Your task to perform on an android device: install app "Expedia: Hotels, Flights & Car" Image 0: 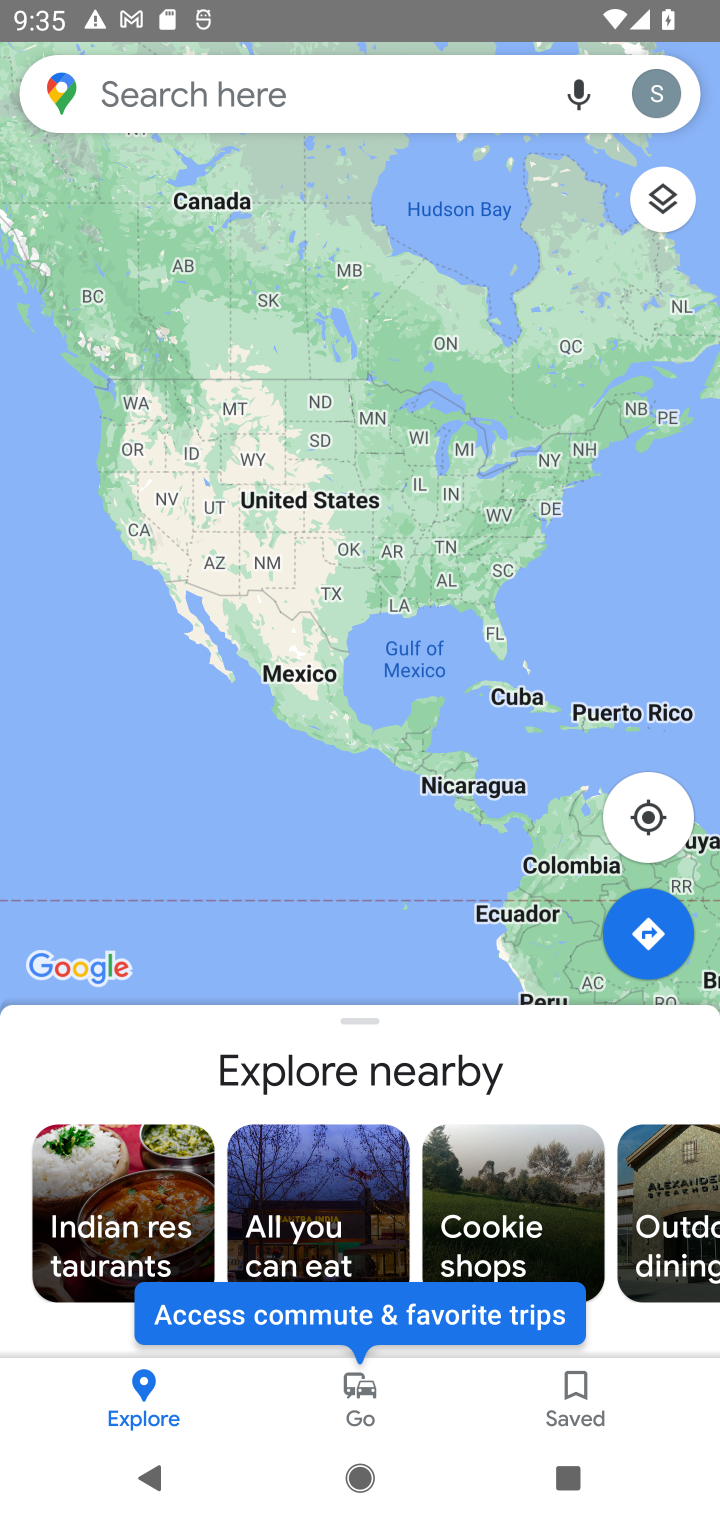
Step 0: press home button
Your task to perform on an android device: install app "Expedia: Hotels, Flights & Car" Image 1: 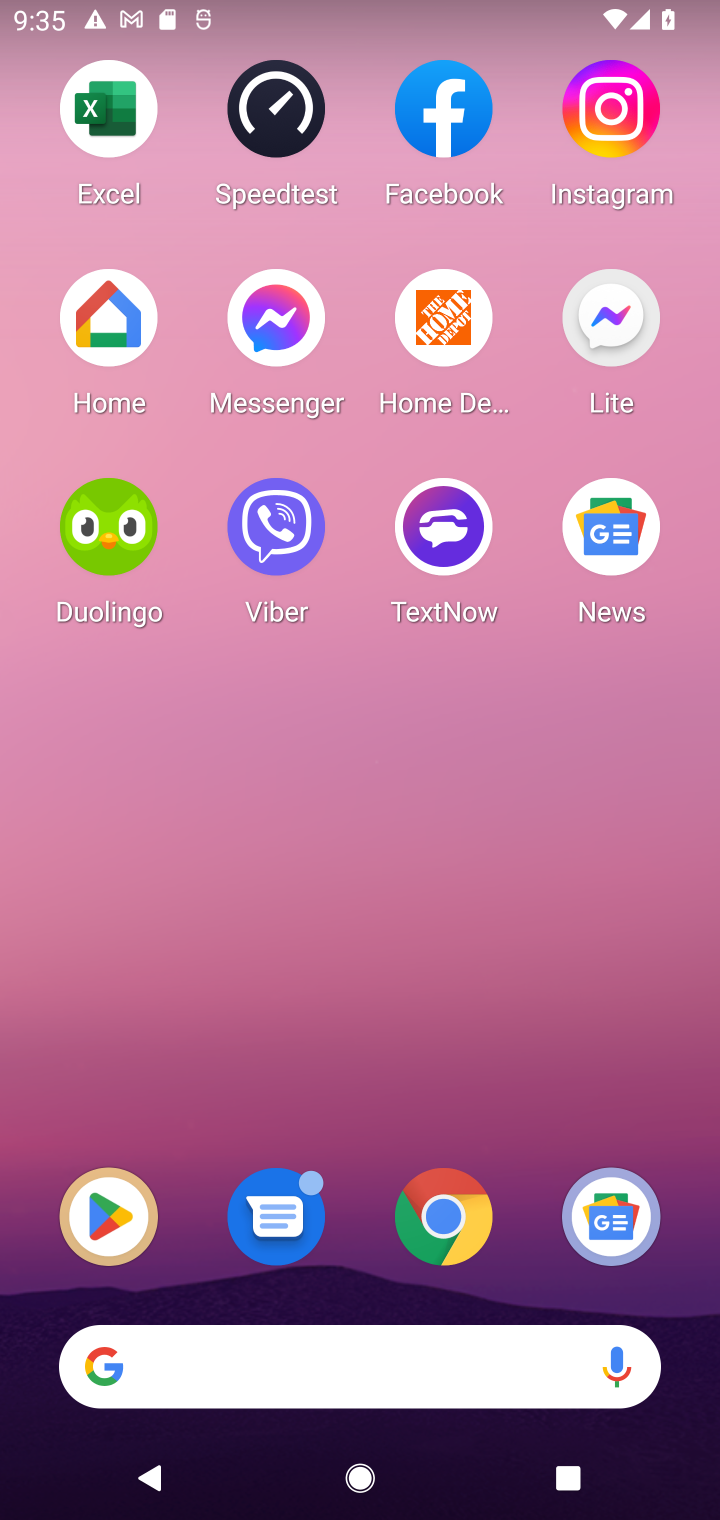
Step 1: click (94, 1216)
Your task to perform on an android device: install app "Expedia: Hotels, Flights & Car" Image 2: 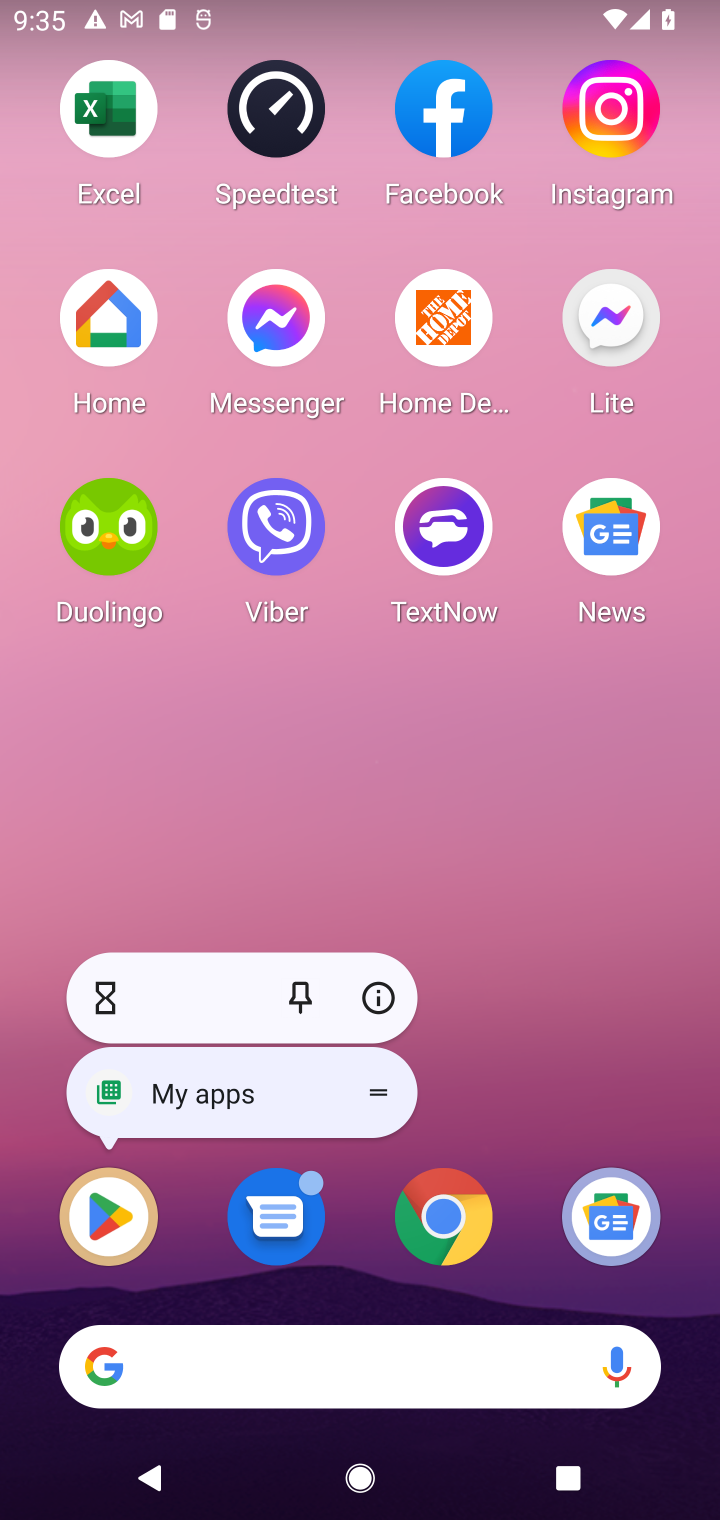
Step 2: click (110, 1233)
Your task to perform on an android device: install app "Expedia: Hotels, Flights & Car" Image 3: 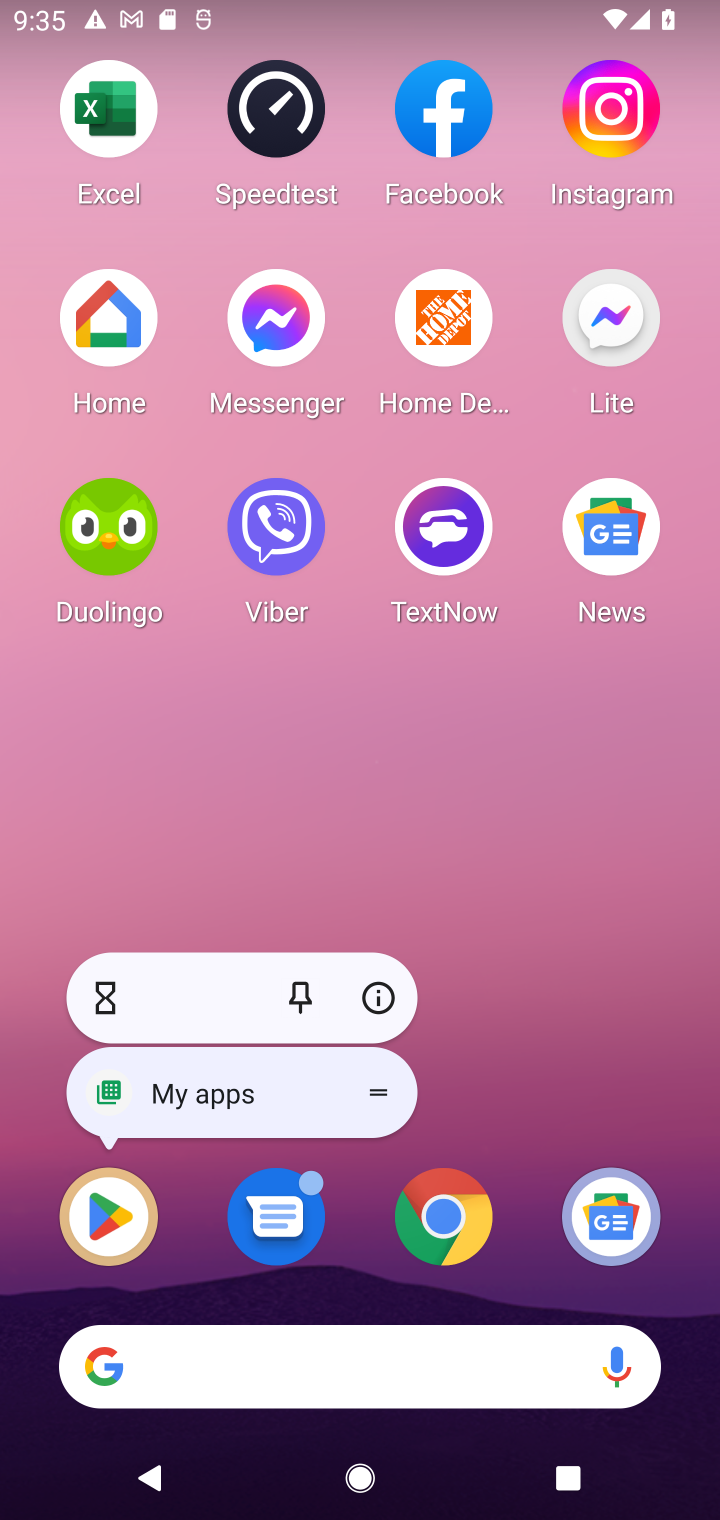
Step 3: click (110, 1233)
Your task to perform on an android device: install app "Expedia: Hotels, Flights & Car" Image 4: 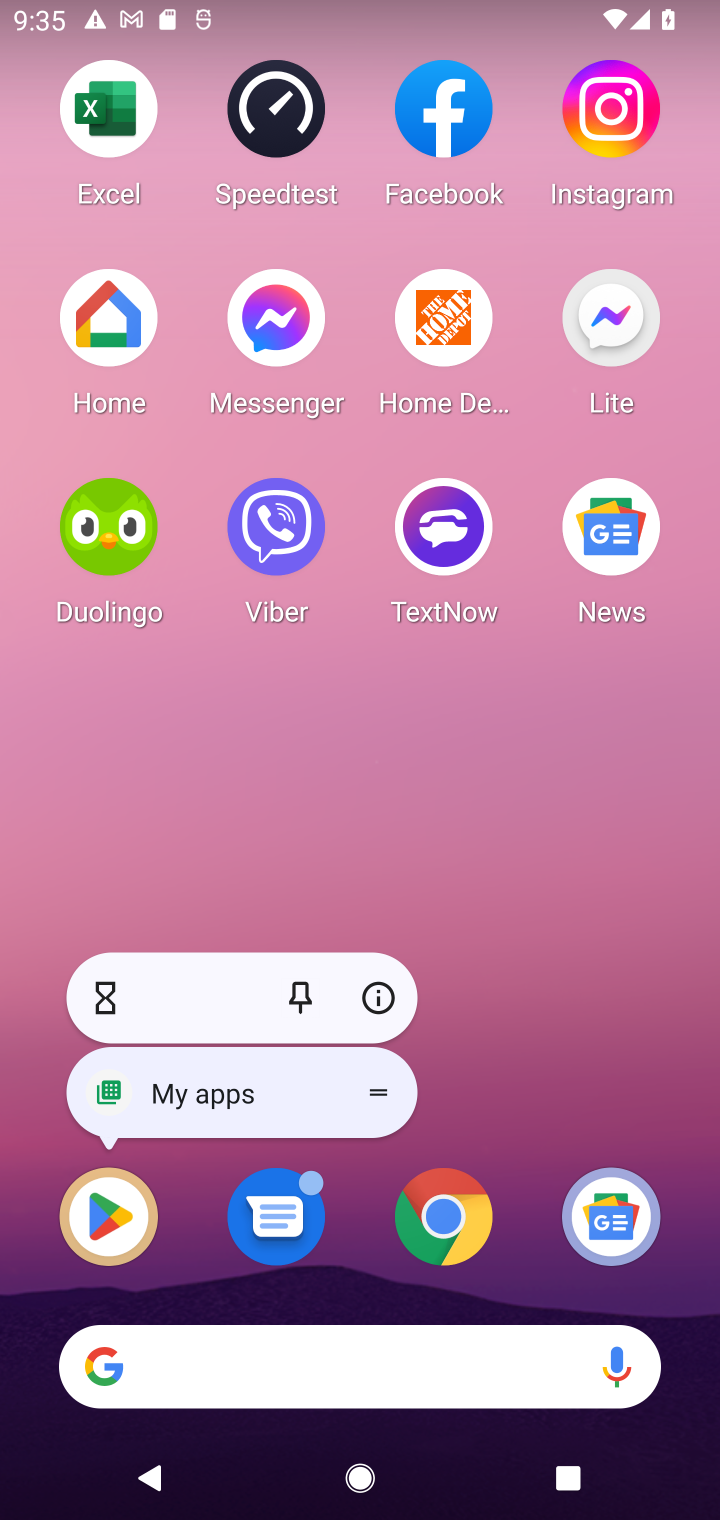
Step 4: click (106, 1228)
Your task to perform on an android device: install app "Expedia: Hotels, Flights & Car" Image 5: 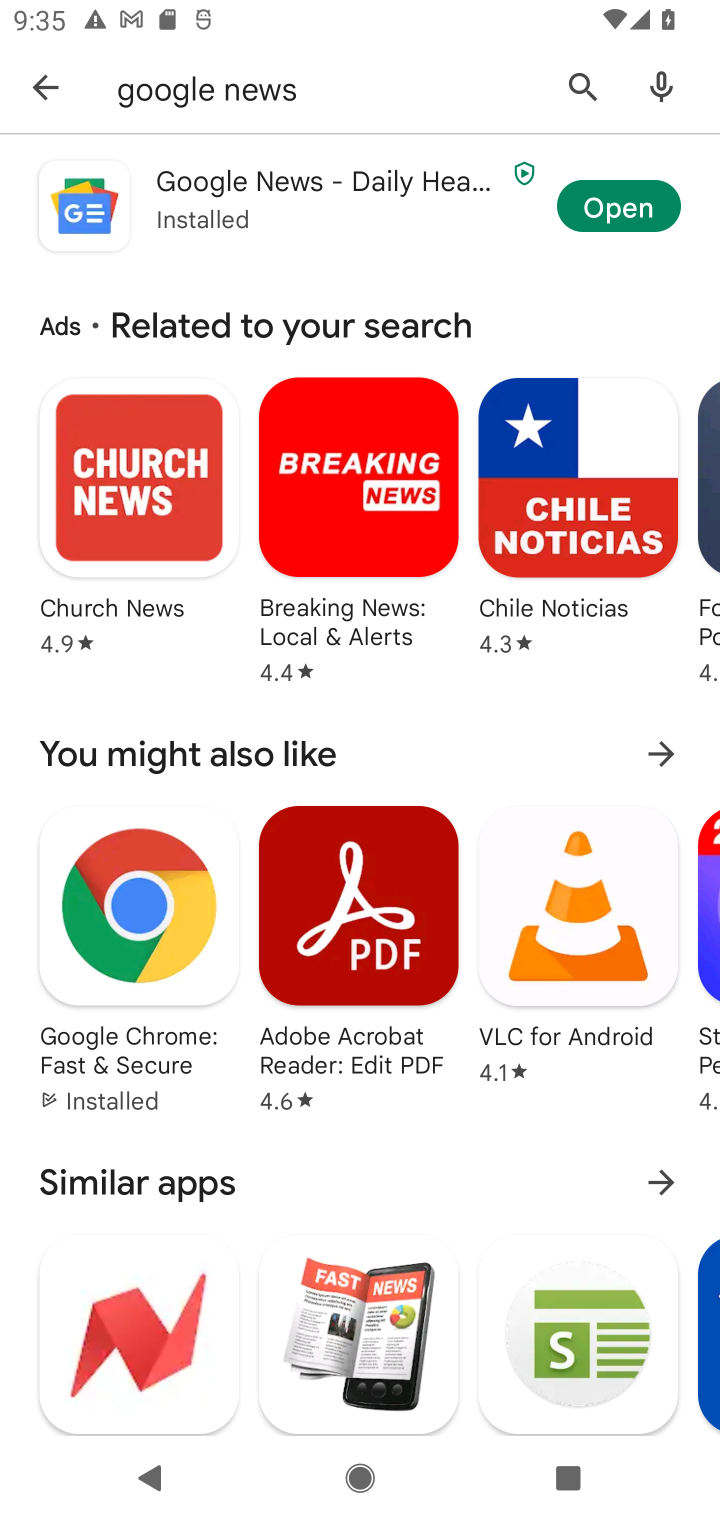
Step 5: click (596, 89)
Your task to perform on an android device: install app "Expedia: Hotels, Flights & Car" Image 6: 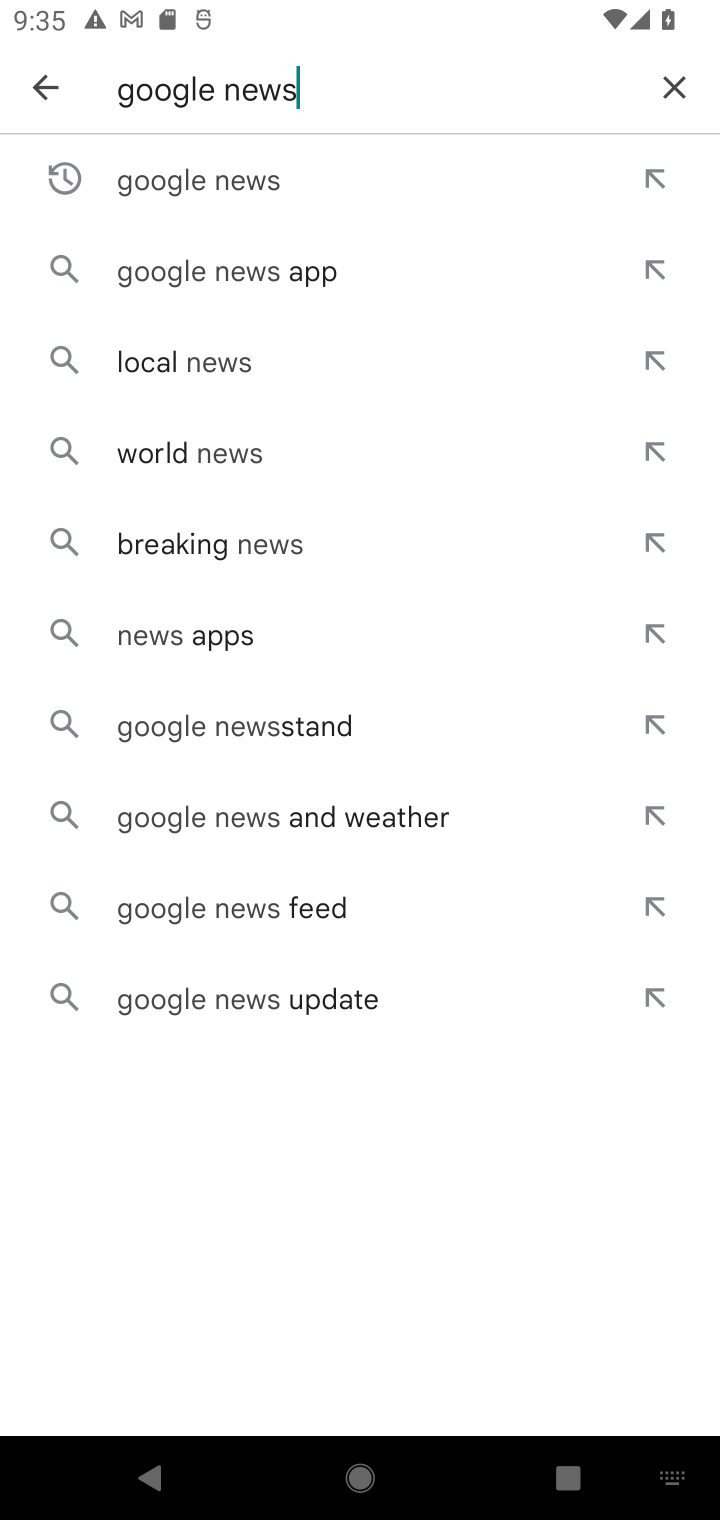
Step 6: click (690, 92)
Your task to perform on an android device: install app "Expedia: Hotels, Flights & Car" Image 7: 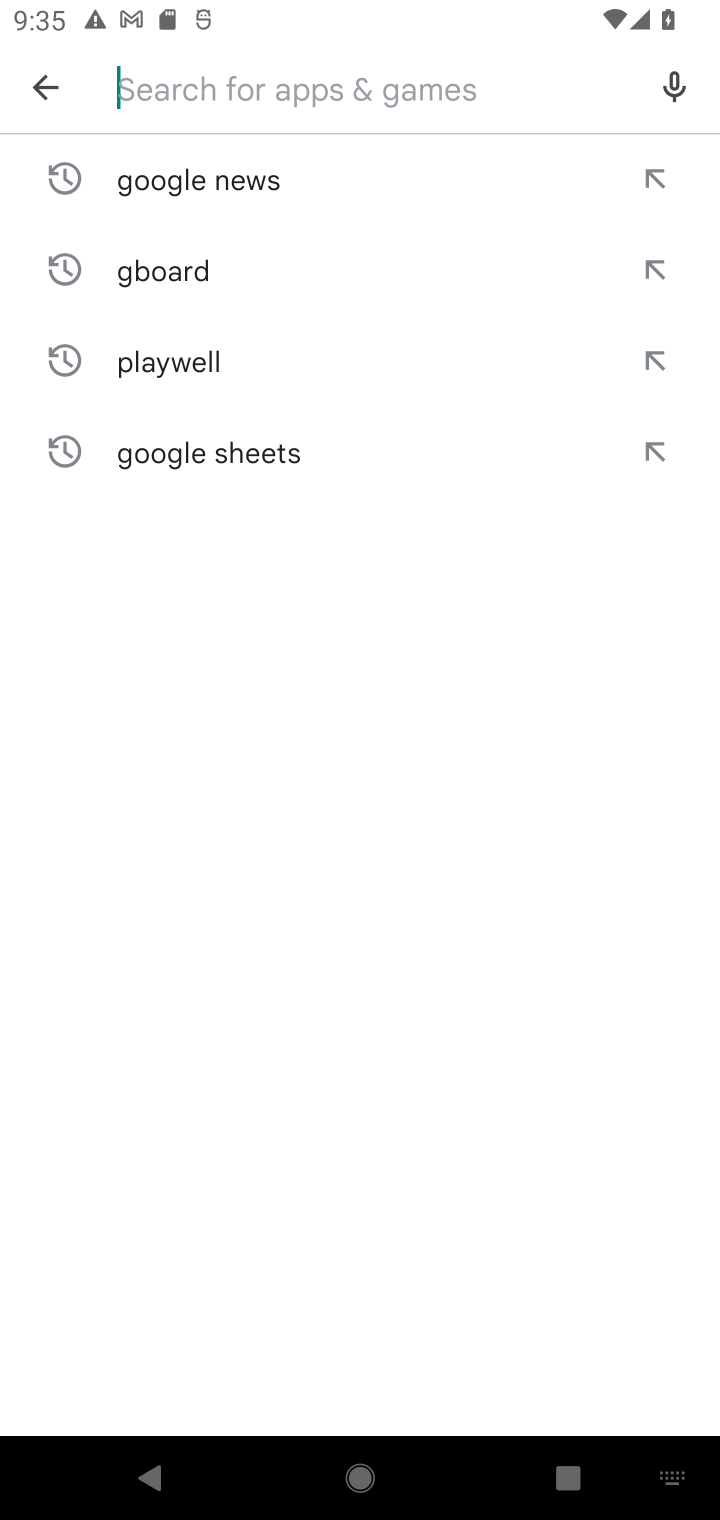
Step 7: type "Expedia: Hotels, Flights & Car"
Your task to perform on an android device: install app "Expedia: Hotels, Flights & Car" Image 8: 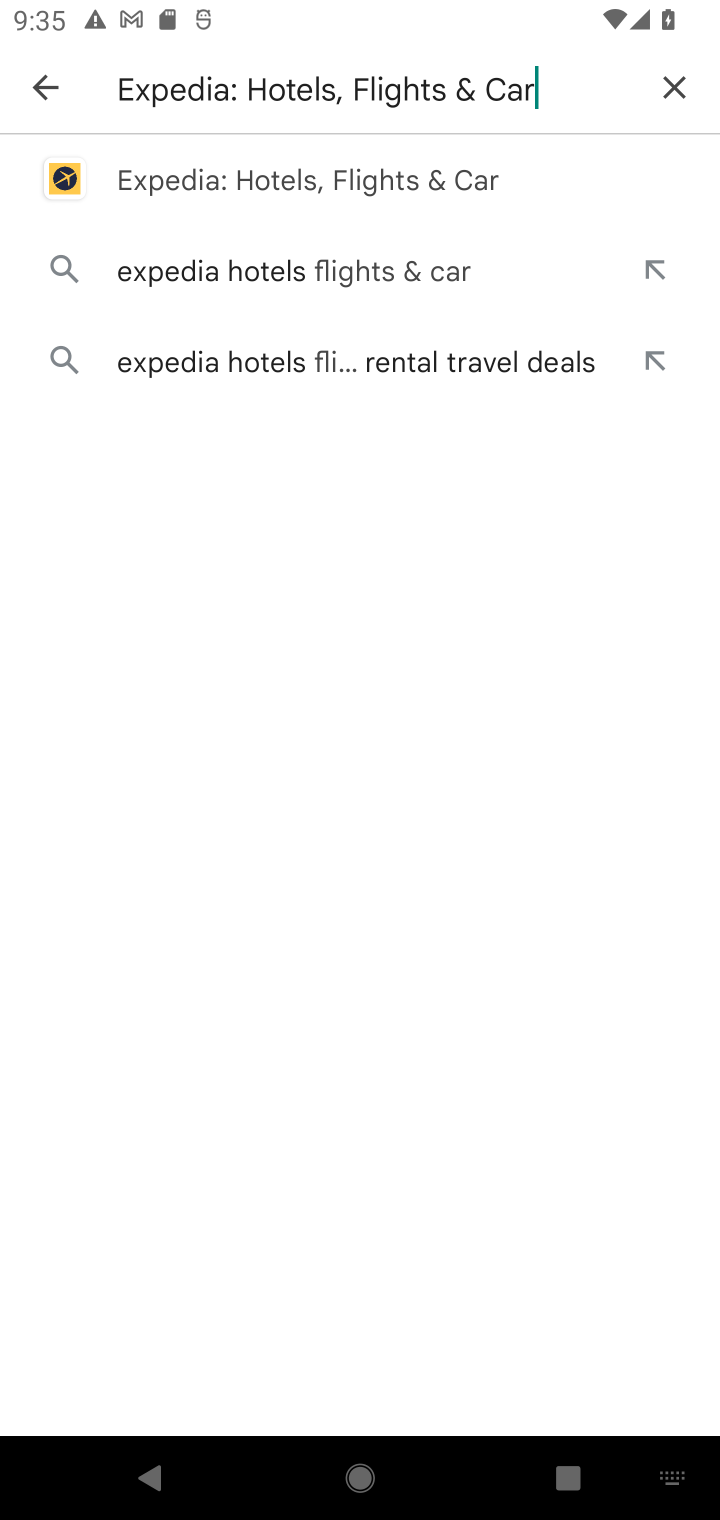
Step 8: click (191, 186)
Your task to perform on an android device: install app "Expedia: Hotels, Flights & Car" Image 9: 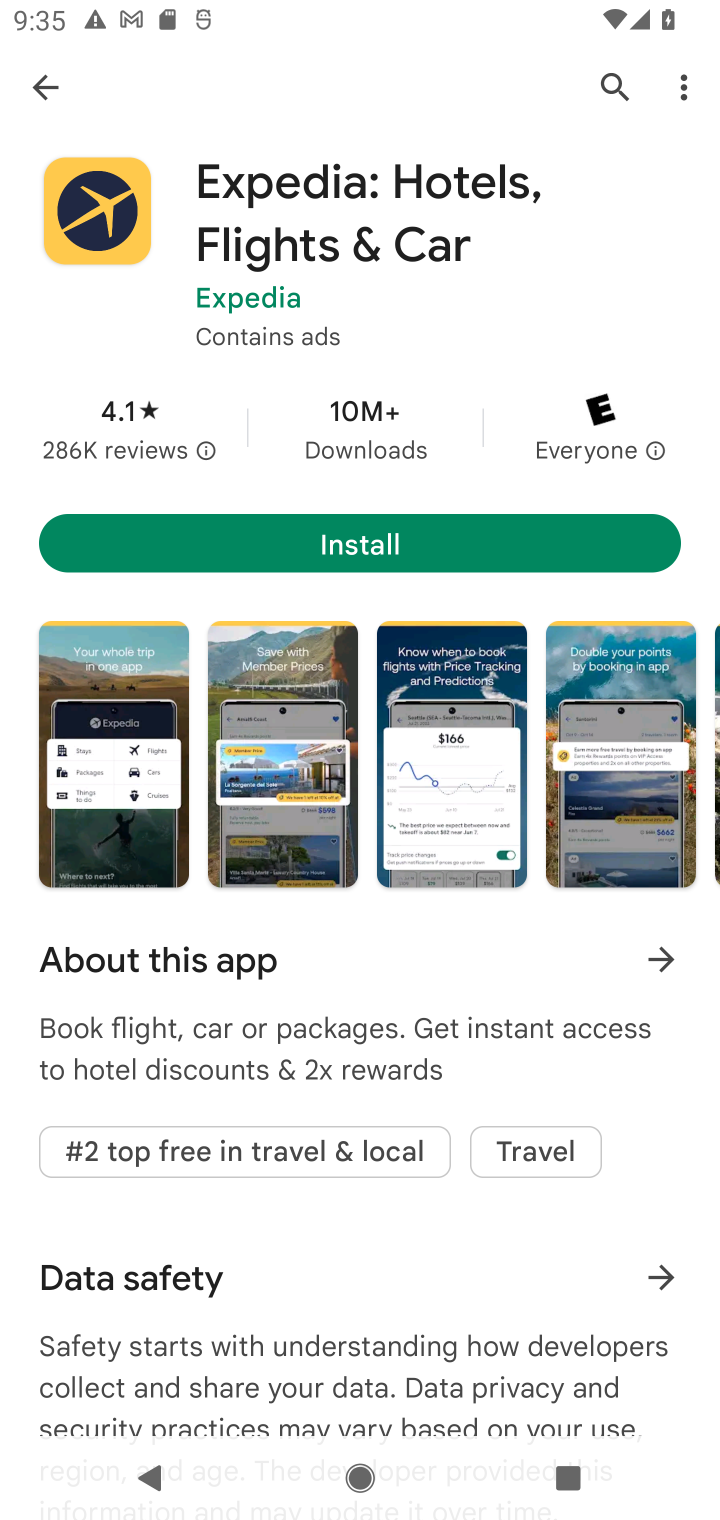
Step 9: click (343, 537)
Your task to perform on an android device: install app "Expedia: Hotels, Flights & Car" Image 10: 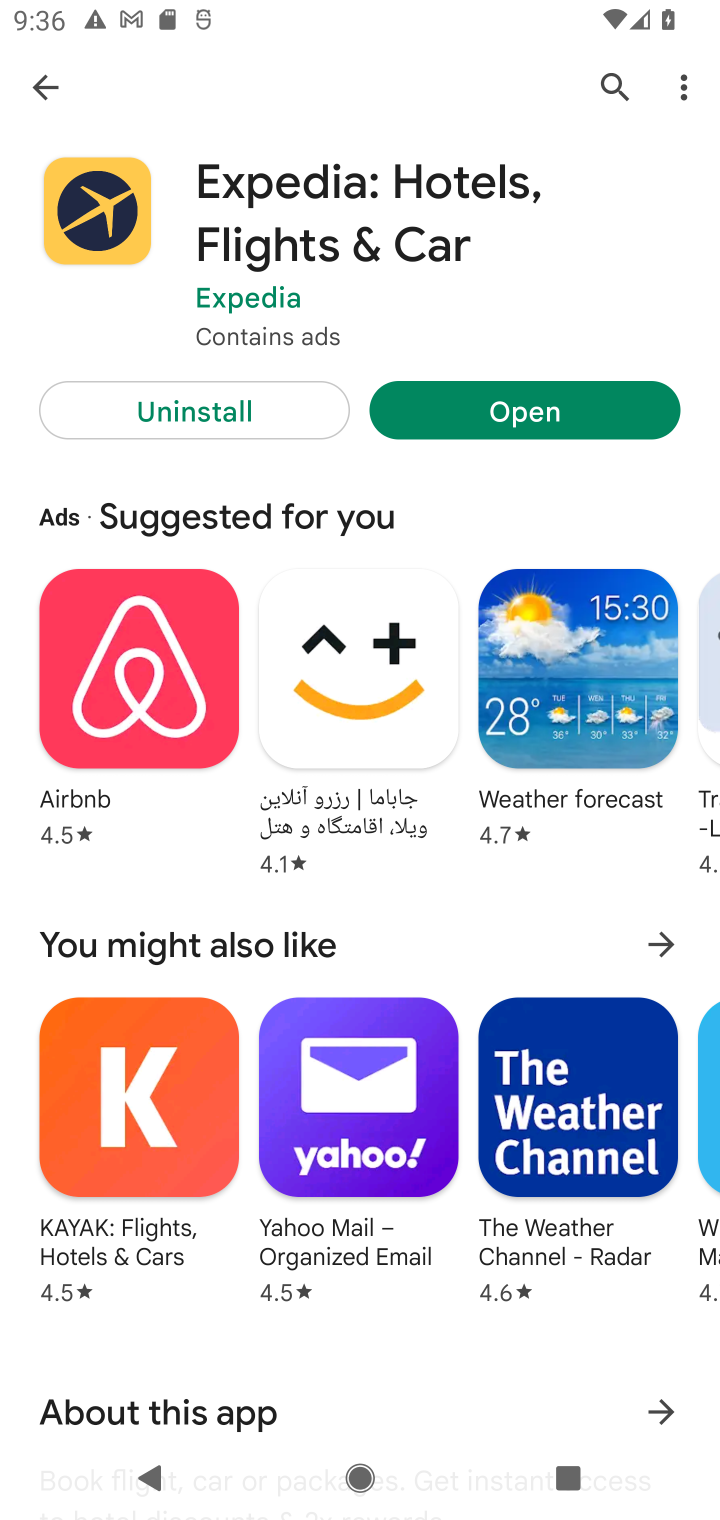
Step 10: task complete